Your task to perform on an android device: Open the calendar and show me this week's events? Image 0: 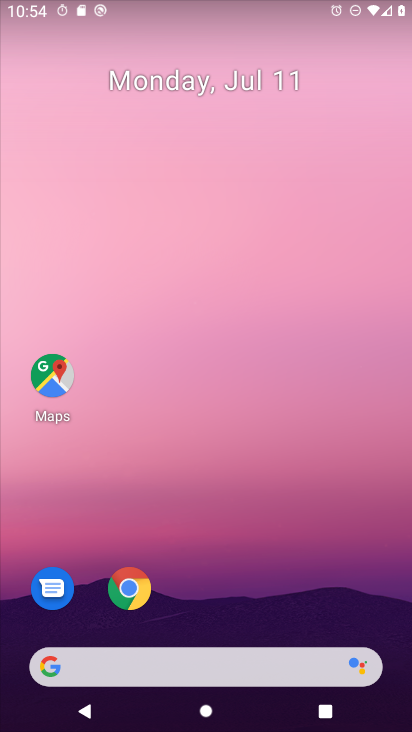
Step 0: drag from (168, 613) to (331, 7)
Your task to perform on an android device: Open the calendar and show me this week's events? Image 1: 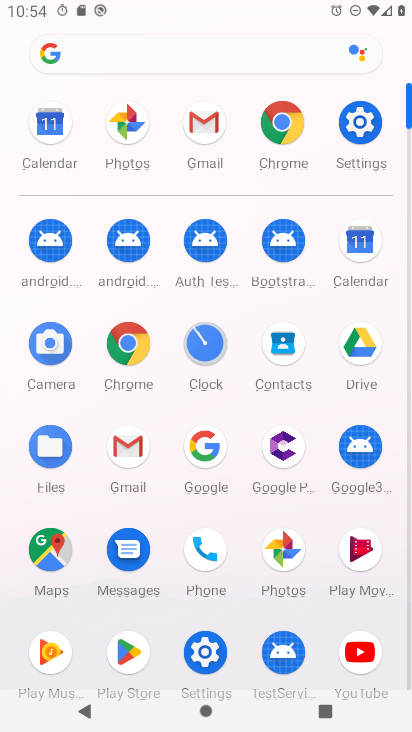
Step 1: click (338, 266)
Your task to perform on an android device: Open the calendar and show me this week's events? Image 2: 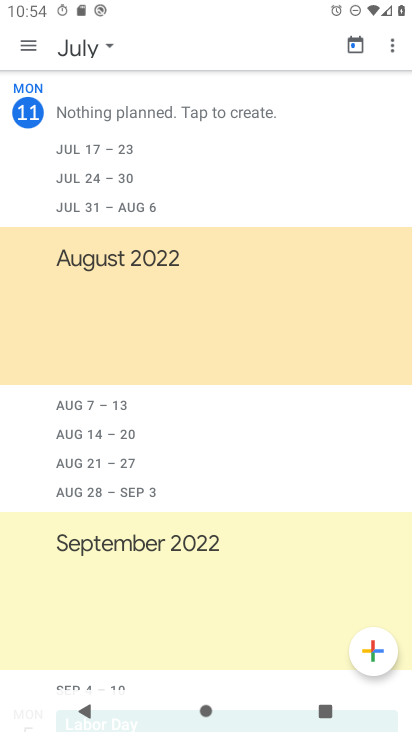
Step 2: press back button
Your task to perform on an android device: Open the calendar and show me this week's events? Image 3: 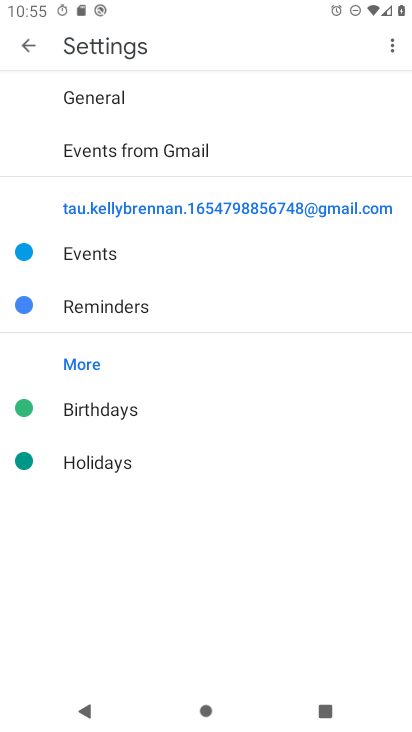
Step 3: press back button
Your task to perform on an android device: Open the calendar and show me this week's events? Image 4: 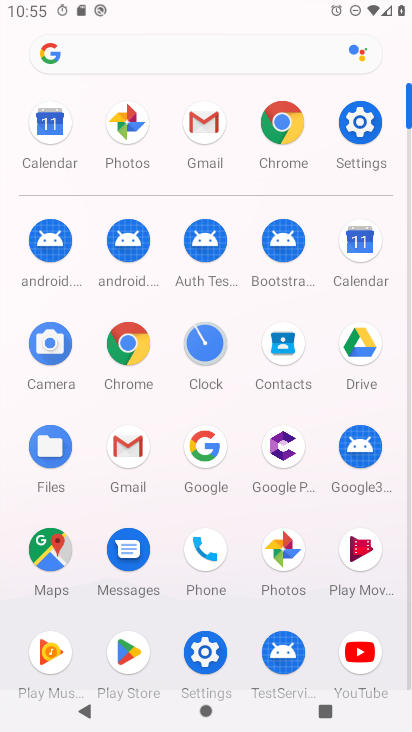
Step 4: click (376, 242)
Your task to perform on an android device: Open the calendar and show me this week's events? Image 5: 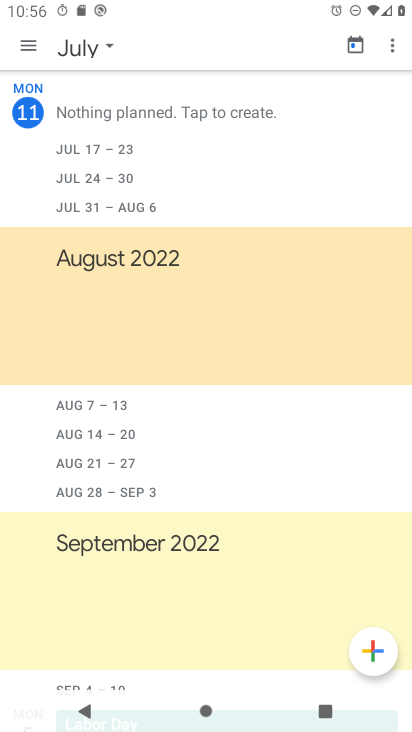
Step 5: task complete